Your task to perform on an android device: Go to Maps Image 0: 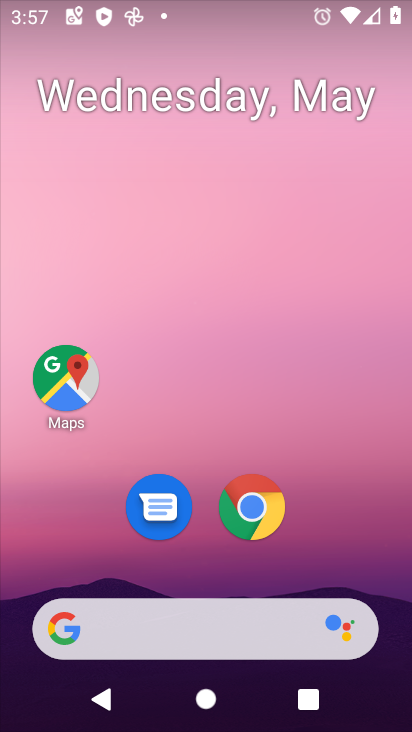
Step 0: click (83, 371)
Your task to perform on an android device: Go to Maps Image 1: 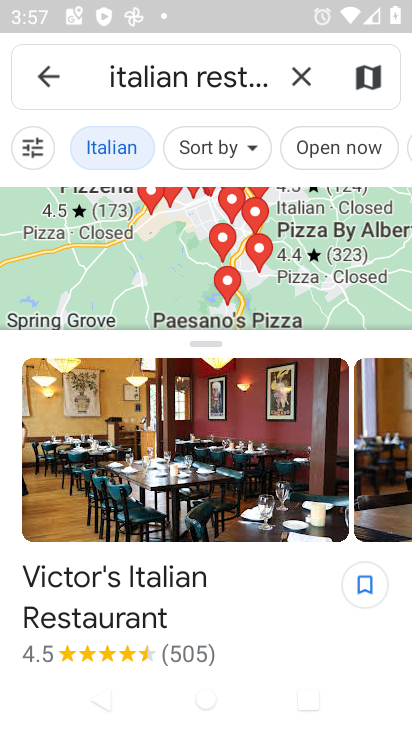
Step 1: task complete